Your task to perform on an android device: open app "LinkedIn" (install if not already installed) Image 0: 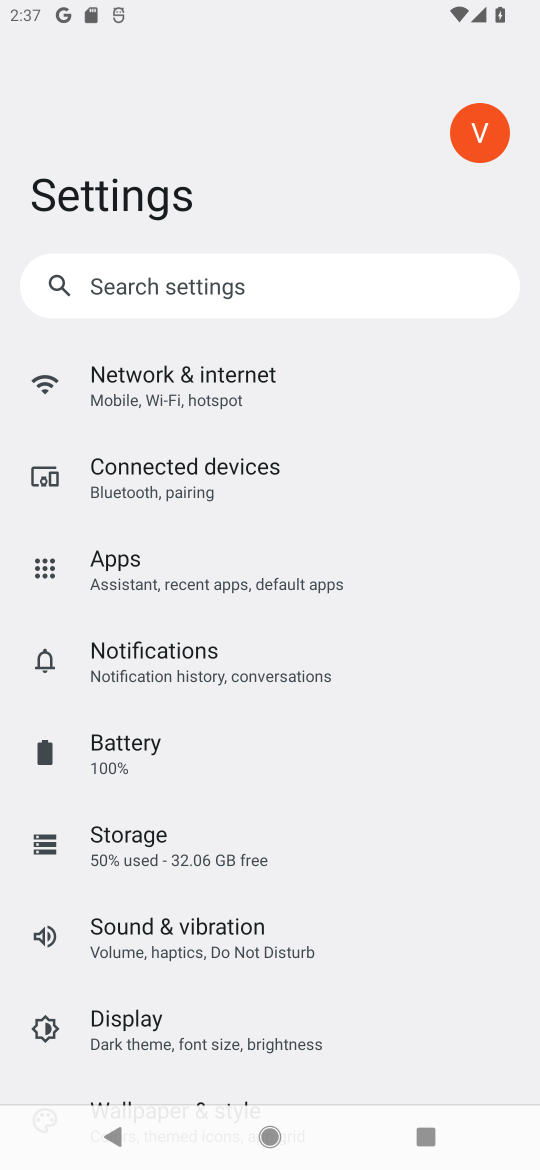
Step 0: press home button
Your task to perform on an android device: open app "LinkedIn" (install if not already installed) Image 1: 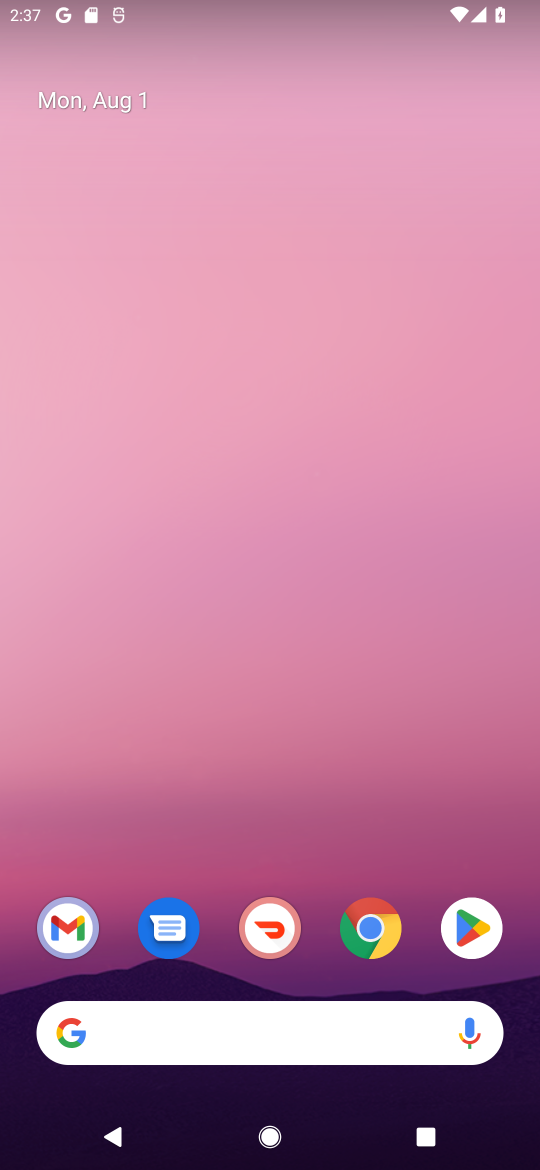
Step 1: click (474, 913)
Your task to perform on an android device: open app "LinkedIn" (install if not already installed) Image 2: 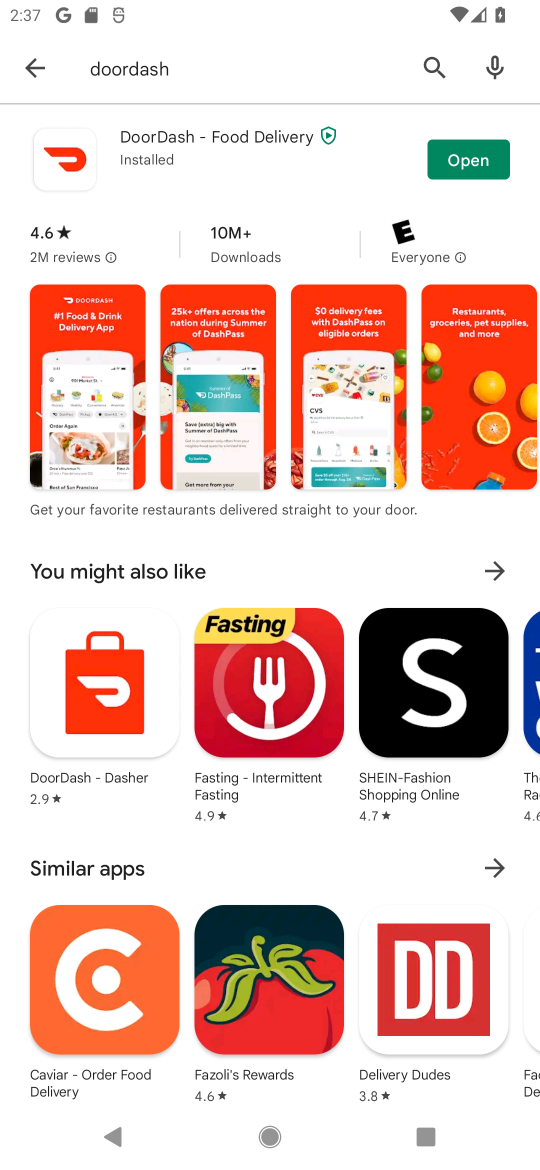
Step 2: click (418, 75)
Your task to perform on an android device: open app "LinkedIn" (install if not already installed) Image 3: 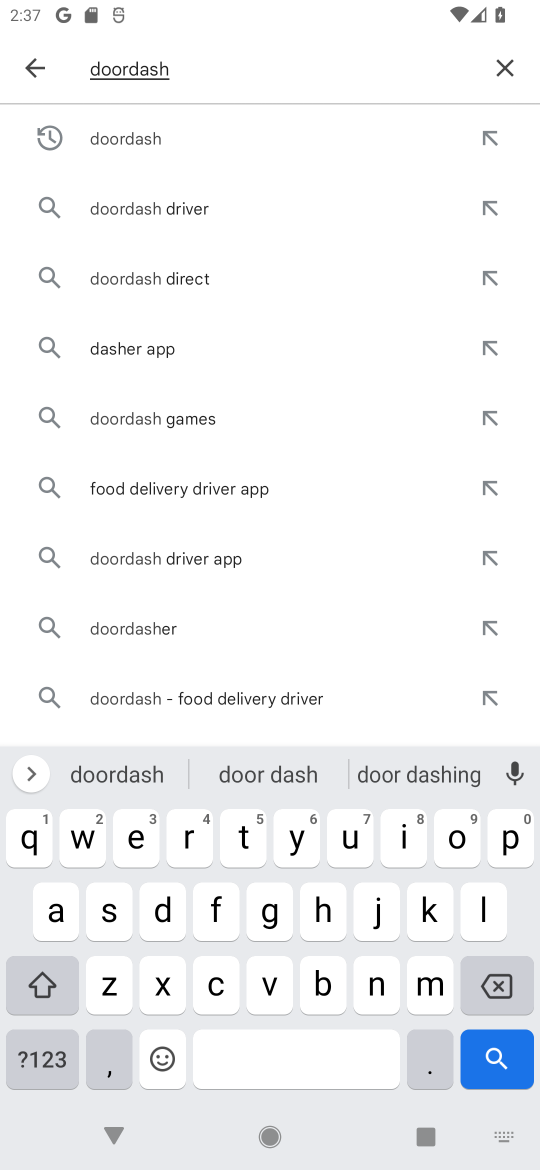
Step 3: click (507, 68)
Your task to perform on an android device: open app "LinkedIn" (install if not already installed) Image 4: 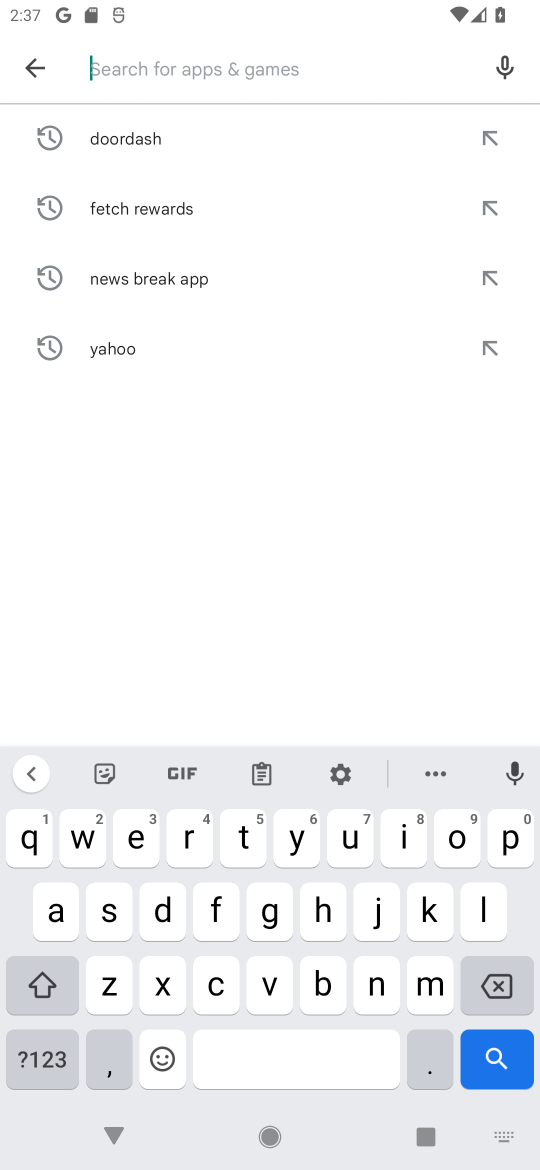
Step 4: click (486, 925)
Your task to perform on an android device: open app "LinkedIn" (install if not already installed) Image 5: 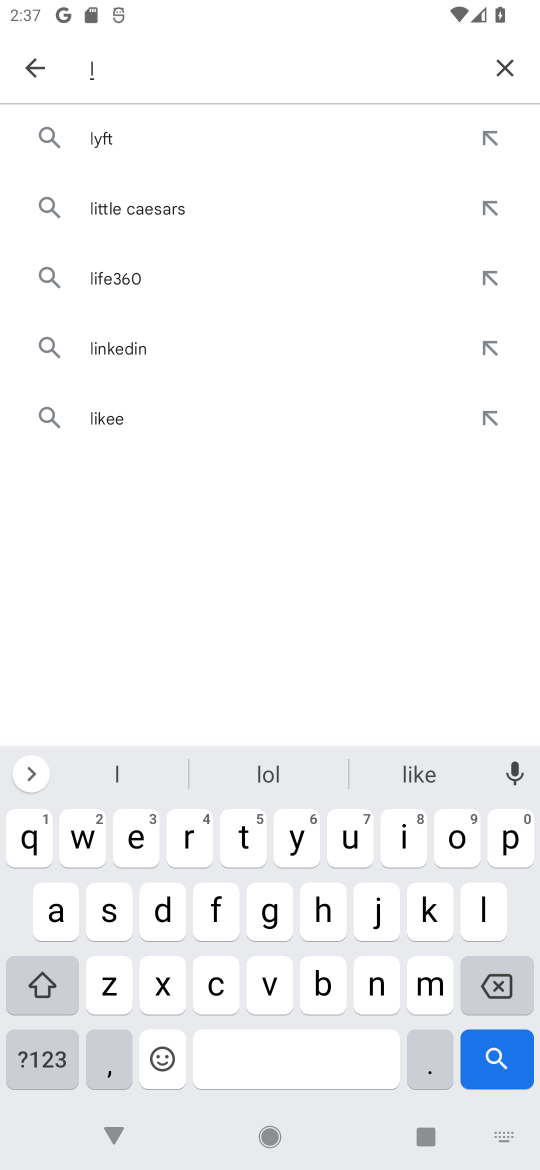
Step 5: click (415, 830)
Your task to perform on an android device: open app "LinkedIn" (install if not already installed) Image 6: 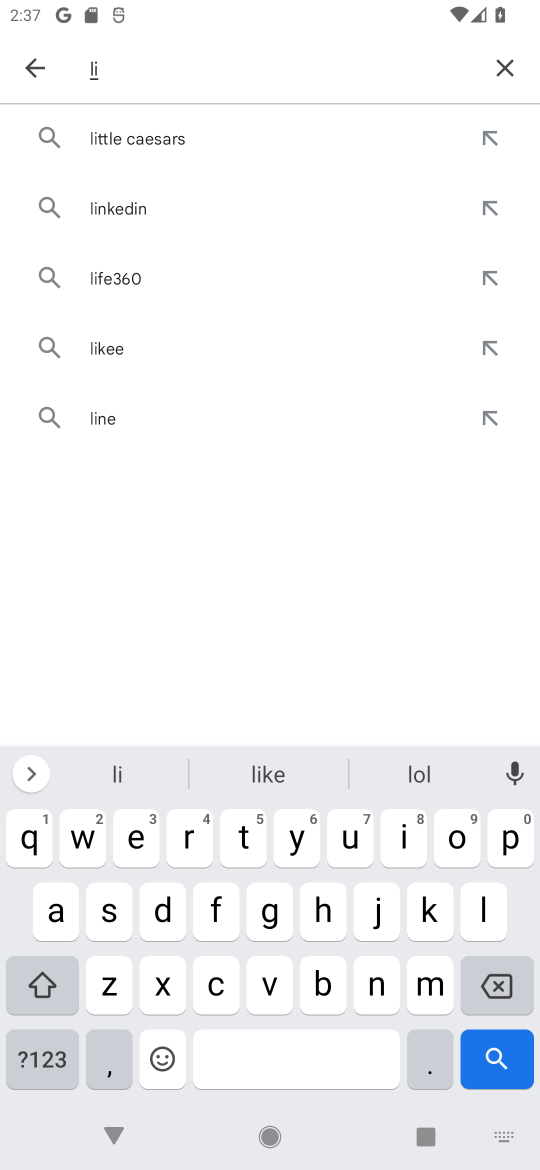
Step 6: click (121, 207)
Your task to perform on an android device: open app "LinkedIn" (install if not already installed) Image 7: 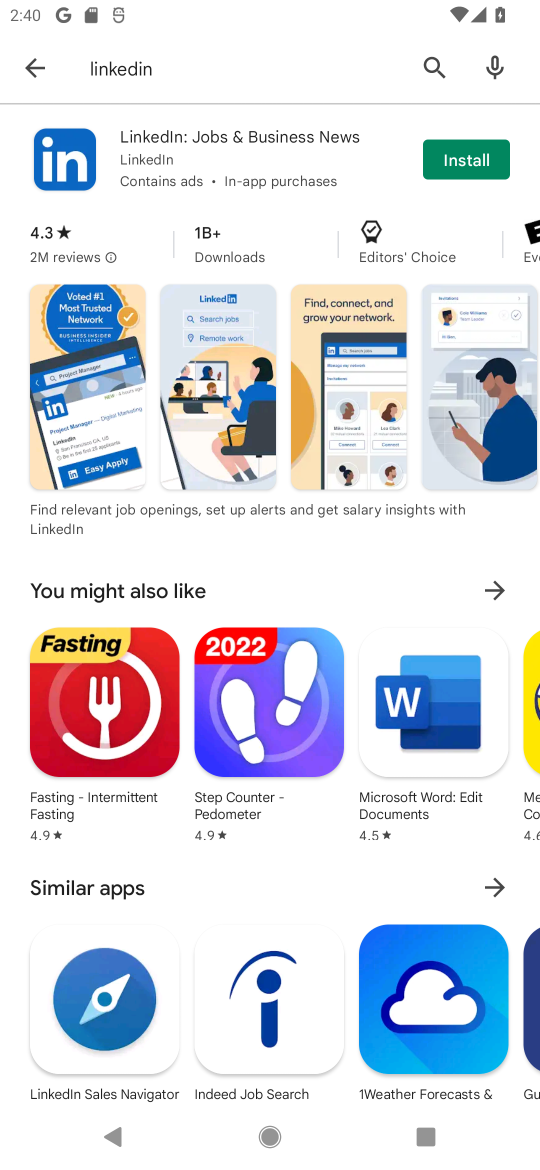
Step 7: click (464, 137)
Your task to perform on an android device: open app "LinkedIn" (install if not already installed) Image 8: 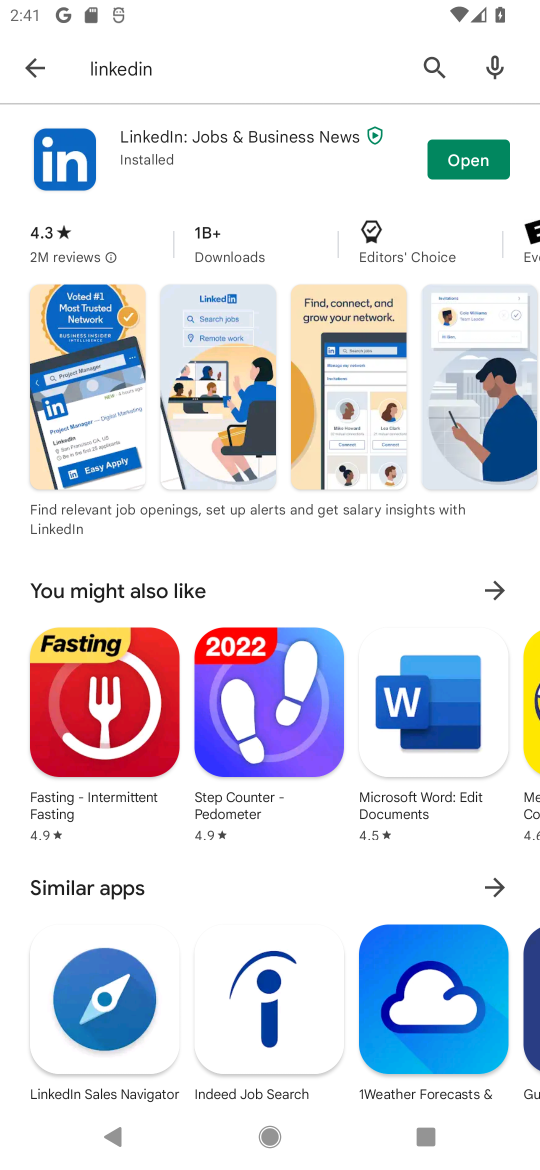
Step 8: click (448, 144)
Your task to perform on an android device: open app "LinkedIn" (install if not already installed) Image 9: 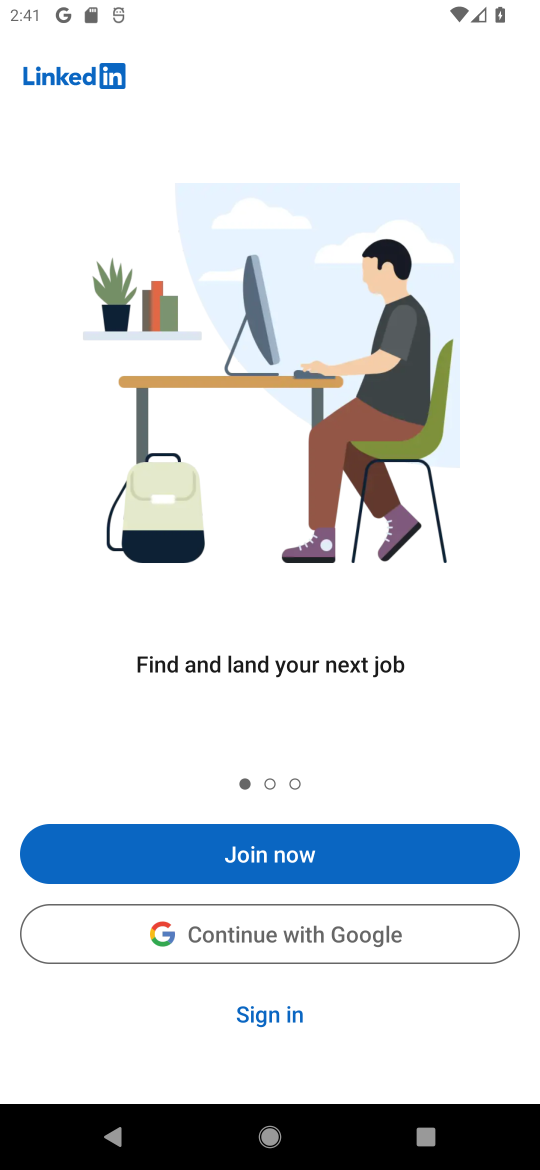
Step 9: task complete